Your task to perform on an android device: manage bookmarks in the chrome app Image 0: 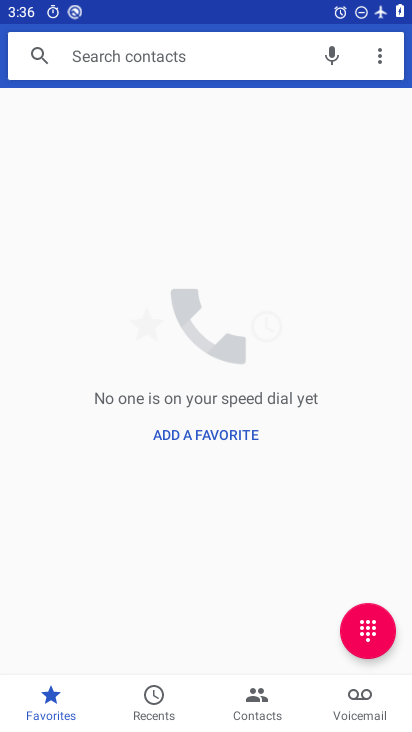
Step 0: press home button
Your task to perform on an android device: manage bookmarks in the chrome app Image 1: 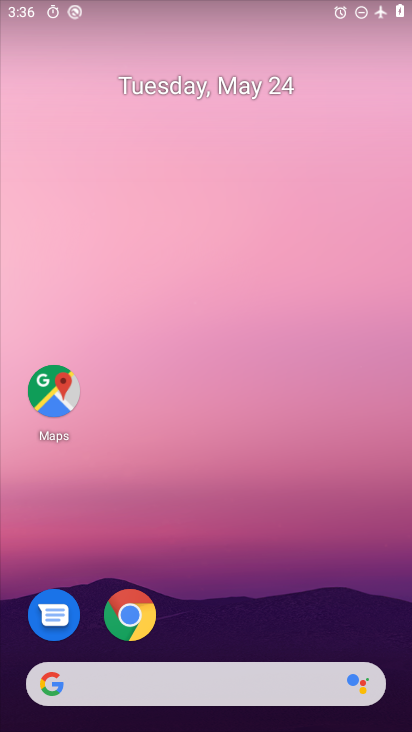
Step 1: click (115, 608)
Your task to perform on an android device: manage bookmarks in the chrome app Image 2: 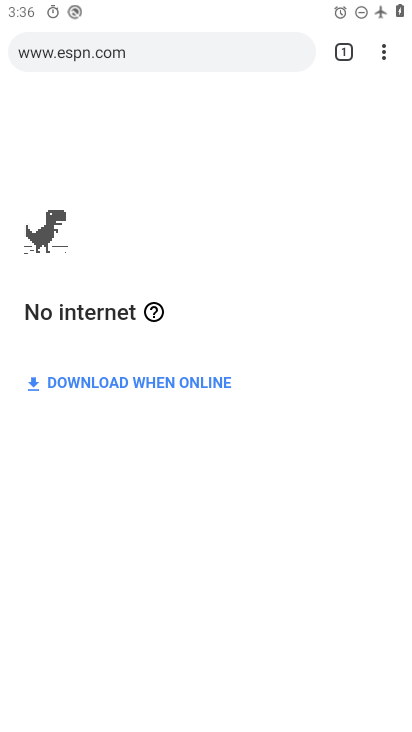
Step 2: click (384, 50)
Your task to perform on an android device: manage bookmarks in the chrome app Image 3: 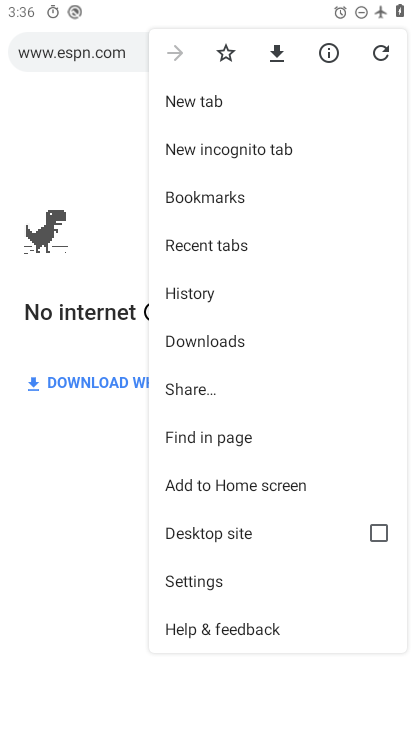
Step 3: click (189, 205)
Your task to perform on an android device: manage bookmarks in the chrome app Image 4: 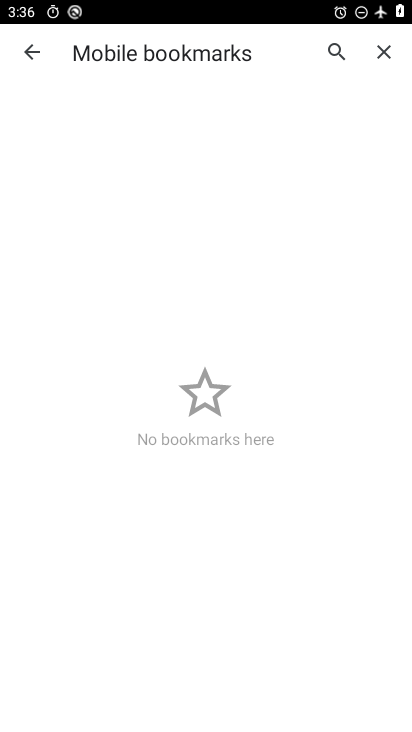
Step 4: task complete